Your task to perform on an android device: Go to location settings Image 0: 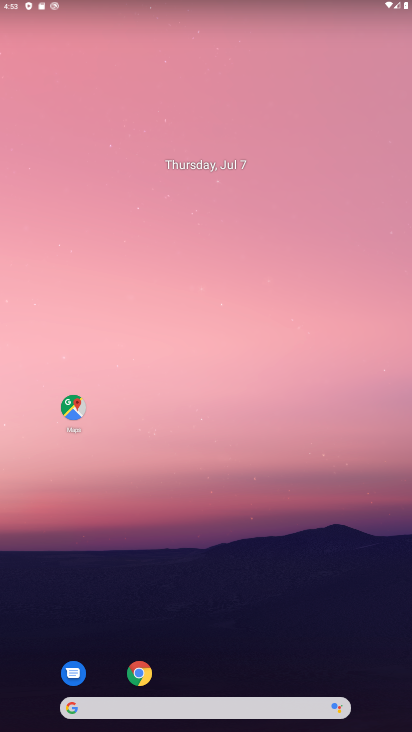
Step 0: drag from (277, 684) to (277, 92)
Your task to perform on an android device: Go to location settings Image 1: 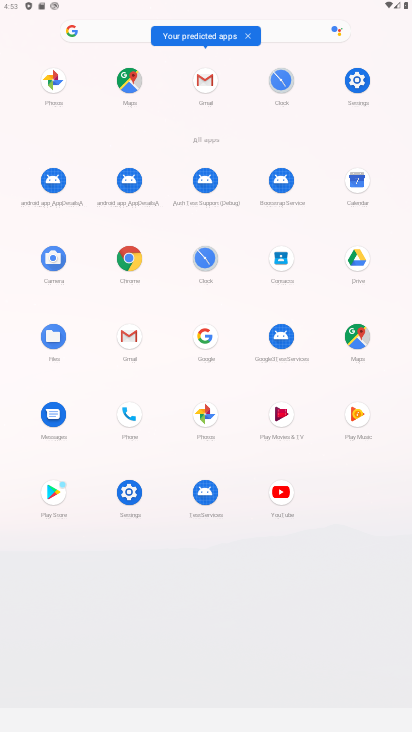
Step 1: click (350, 80)
Your task to perform on an android device: Go to location settings Image 2: 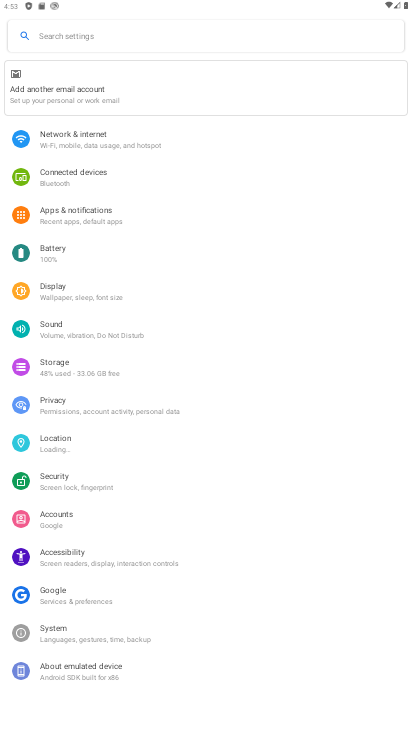
Step 2: click (63, 440)
Your task to perform on an android device: Go to location settings Image 3: 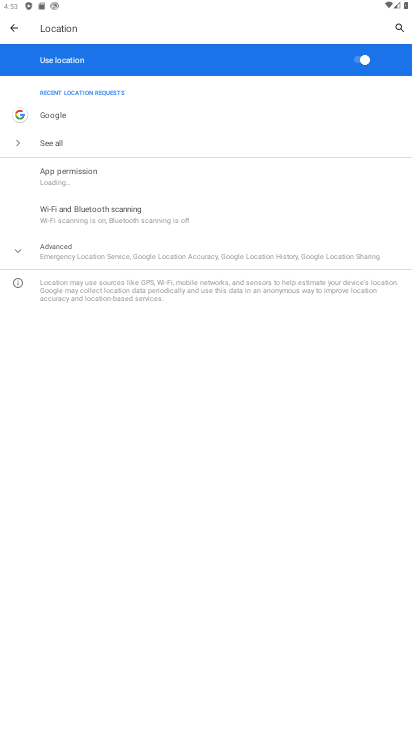
Step 3: task complete